Your task to perform on an android device: check google app version Image 0: 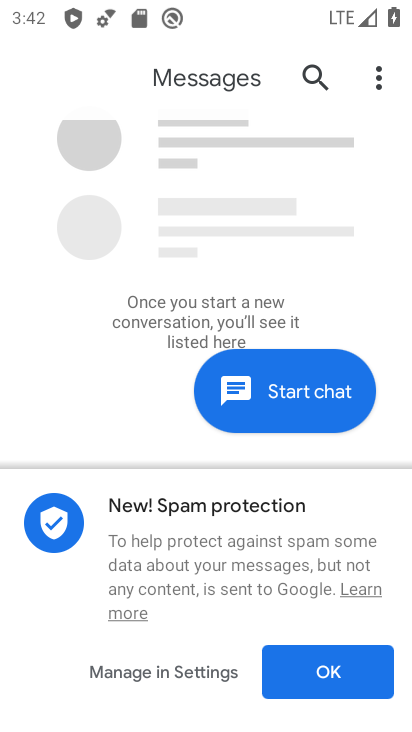
Step 0: press home button
Your task to perform on an android device: check google app version Image 1: 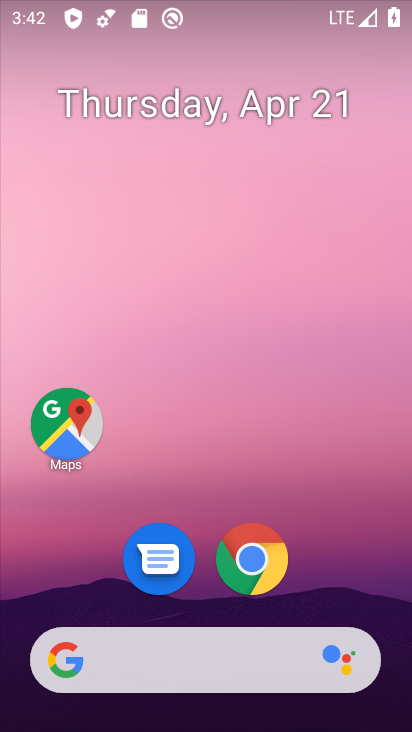
Step 1: drag from (182, 621) to (230, 234)
Your task to perform on an android device: check google app version Image 2: 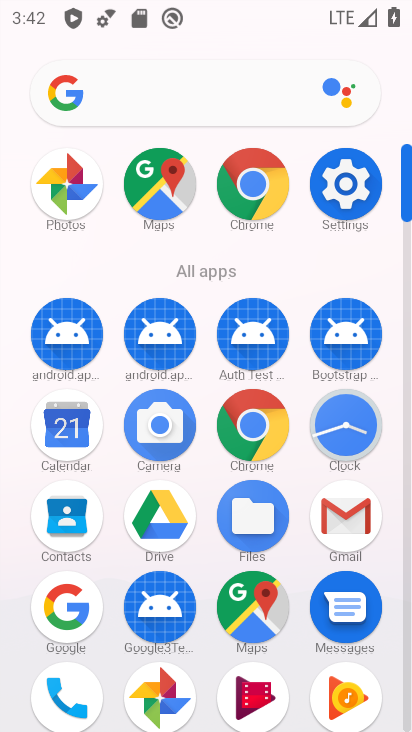
Step 2: click (73, 599)
Your task to perform on an android device: check google app version Image 3: 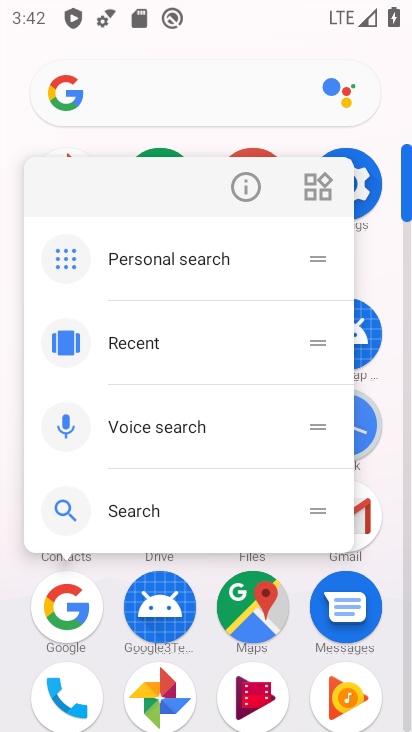
Step 3: click (246, 183)
Your task to perform on an android device: check google app version Image 4: 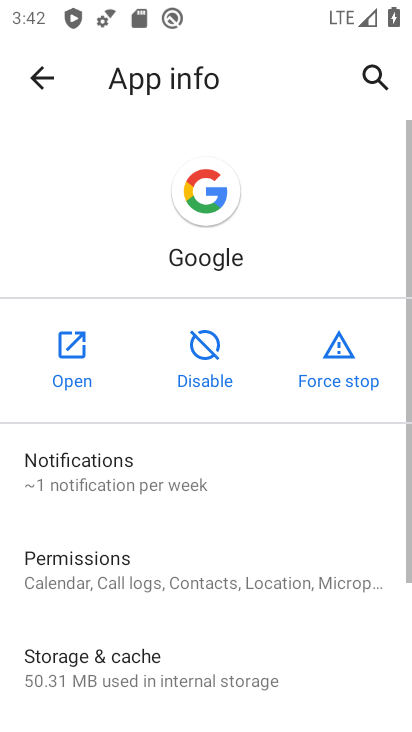
Step 4: drag from (177, 682) to (177, 327)
Your task to perform on an android device: check google app version Image 5: 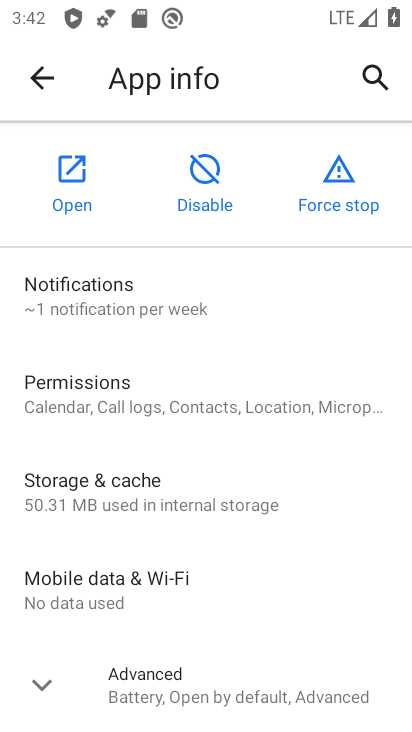
Step 5: drag from (180, 642) to (164, 316)
Your task to perform on an android device: check google app version Image 6: 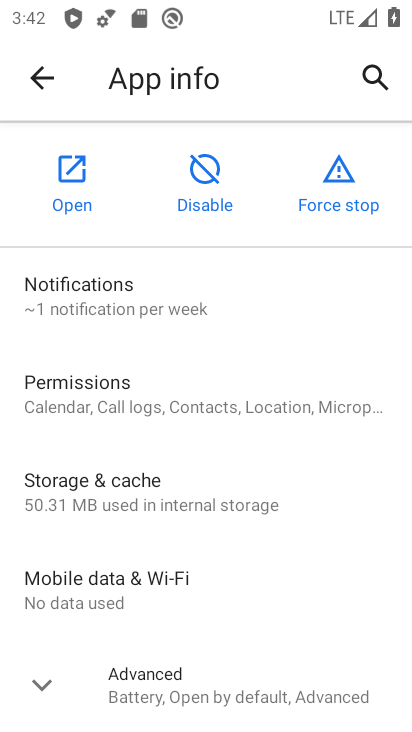
Step 6: click (175, 685)
Your task to perform on an android device: check google app version Image 7: 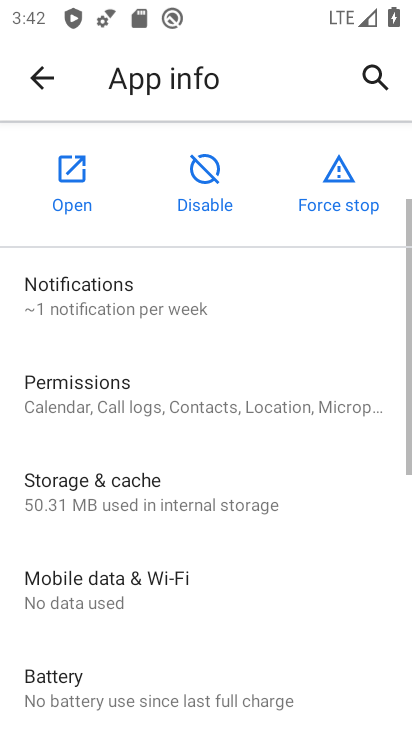
Step 7: task complete